Your task to perform on an android device: see creations saved in the google photos Image 0: 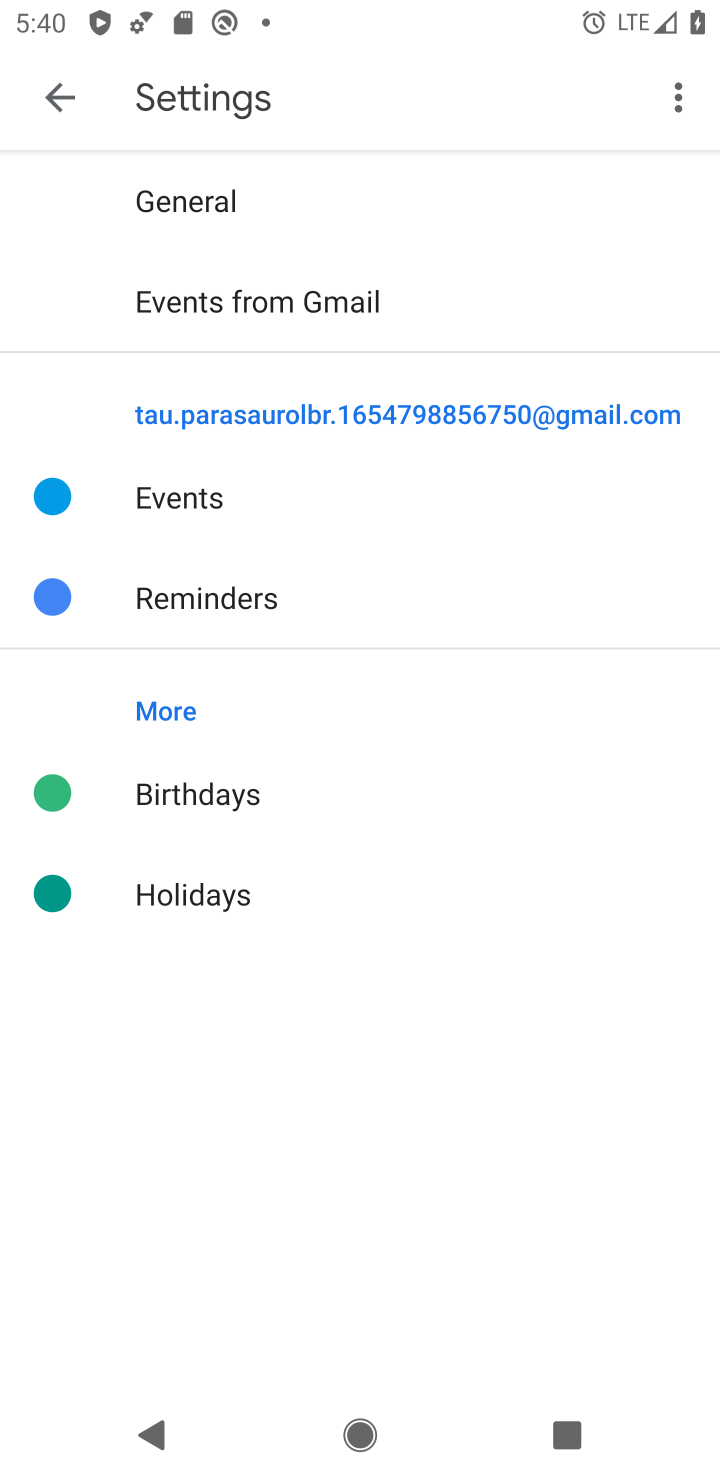
Step 0: press home button
Your task to perform on an android device: see creations saved in the google photos Image 1: 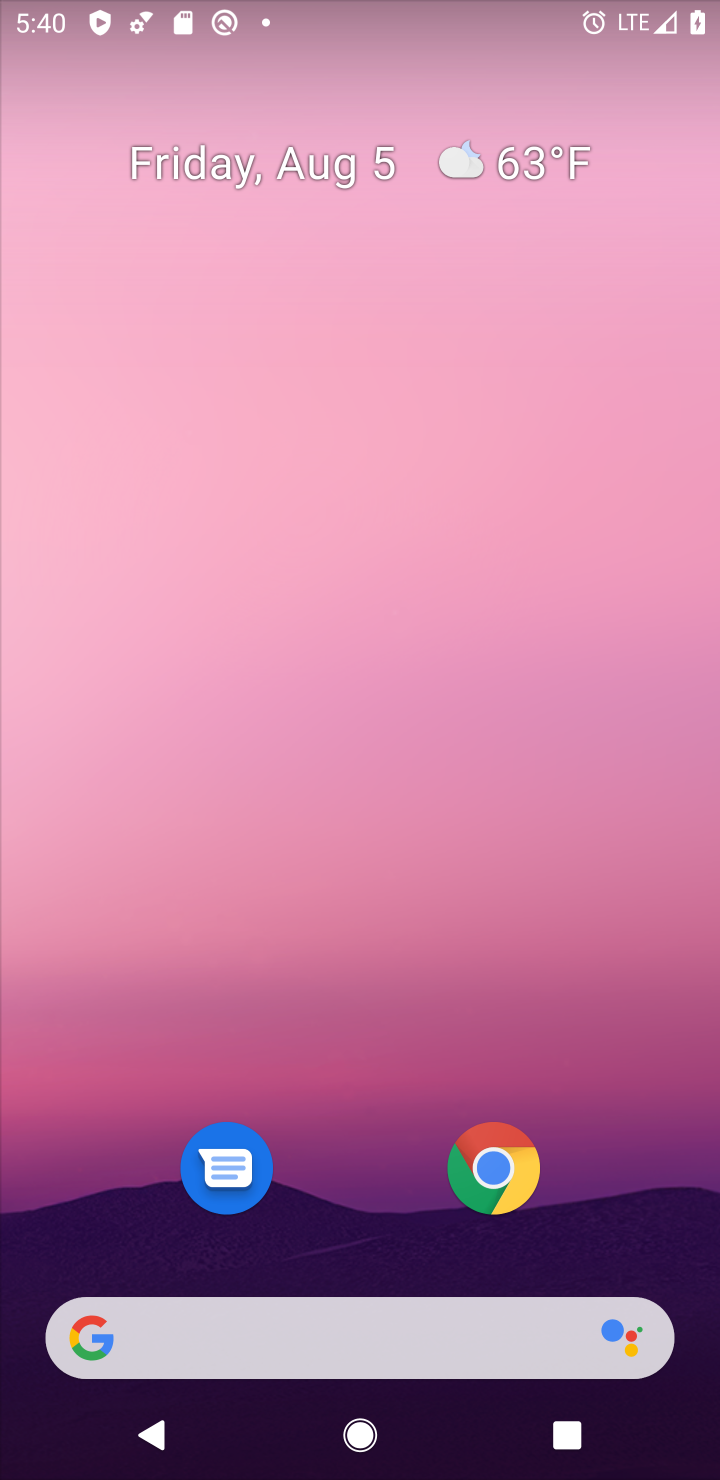
Step 1: drag from (350, 1274) to (455, 77)
Your task to perform on an android device: see creations saved in the google photos Image 2: 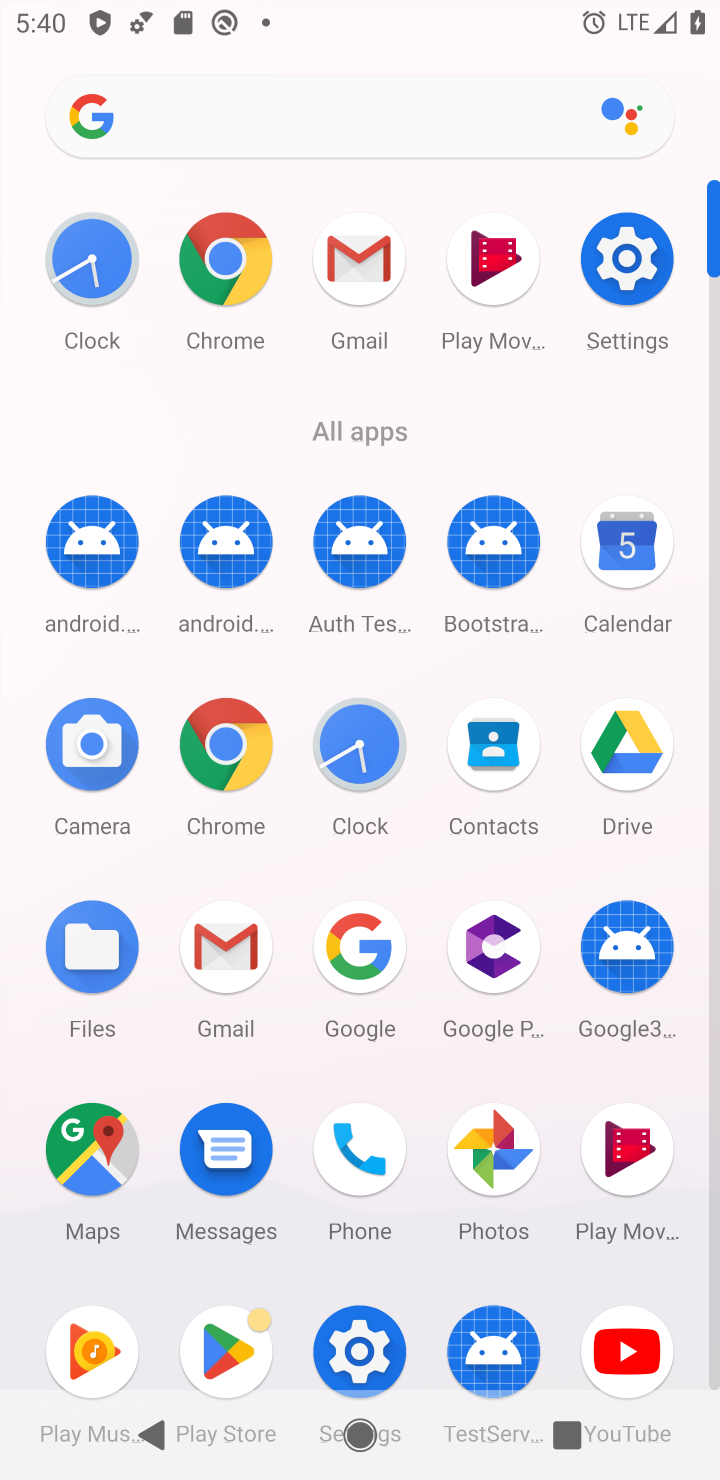
Step 2: click (500, 1159)
Your task to perform on an android device: see creations saved in the google photos Image 3: 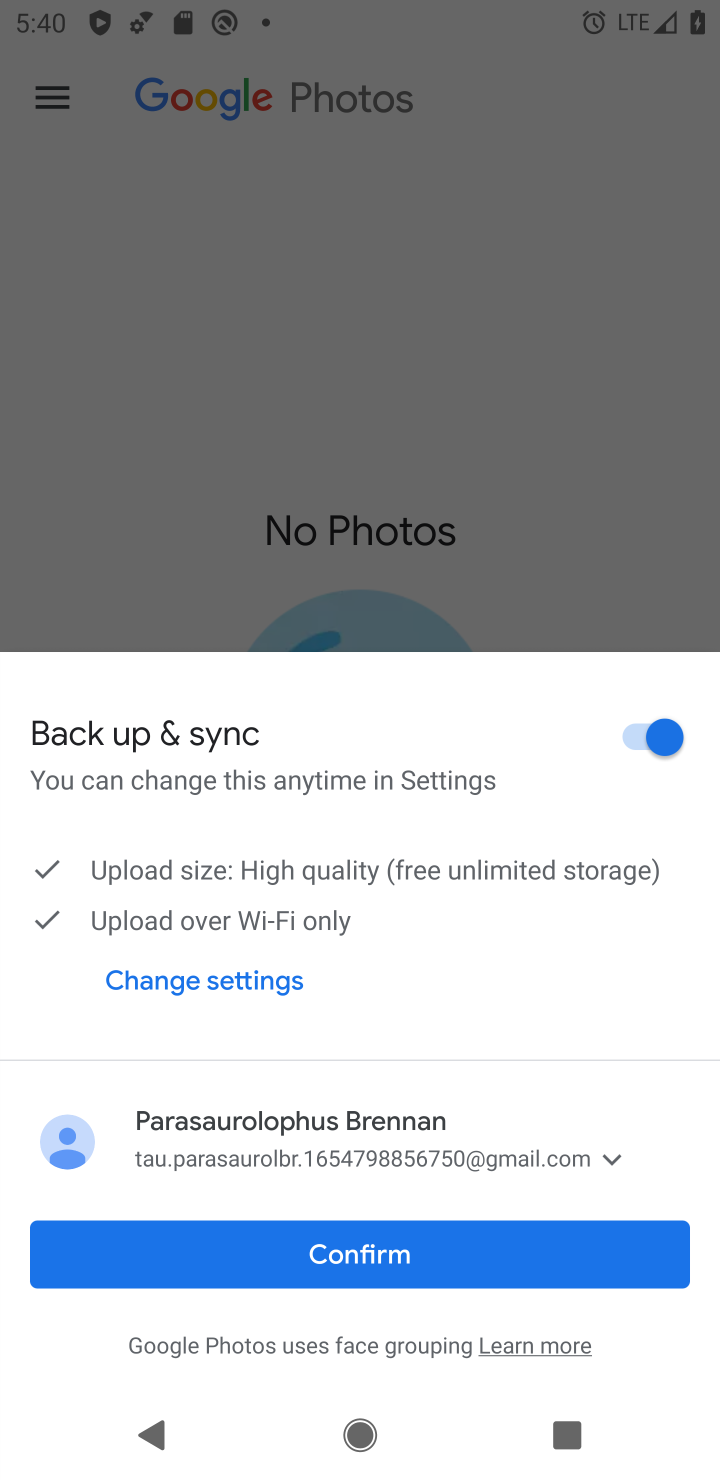
Step 3: click (269, 1254)
Your task to perform on an android device: see creations saved in the google photos Image 4: 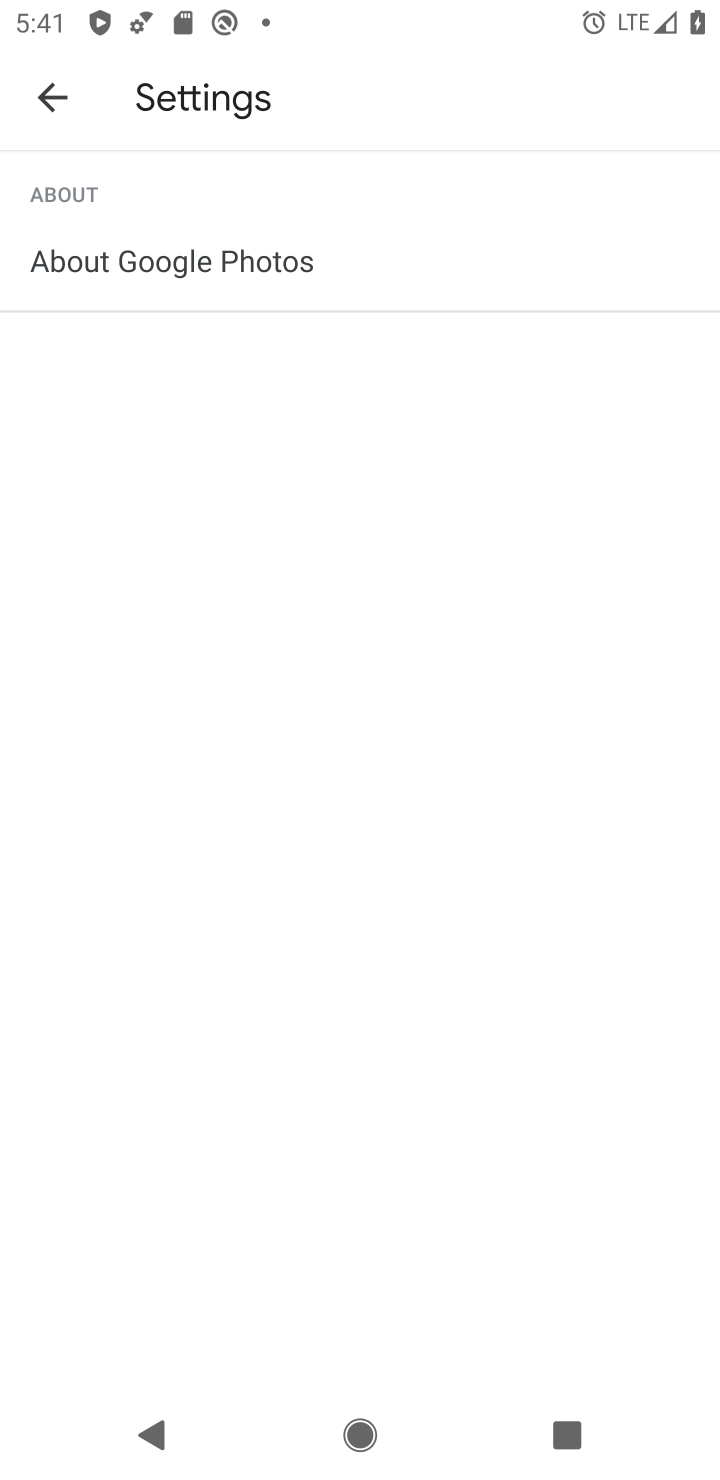
Step 4: click (40, 94)
Your task to perform on an android device: see creations saved in the google photos Image 5: 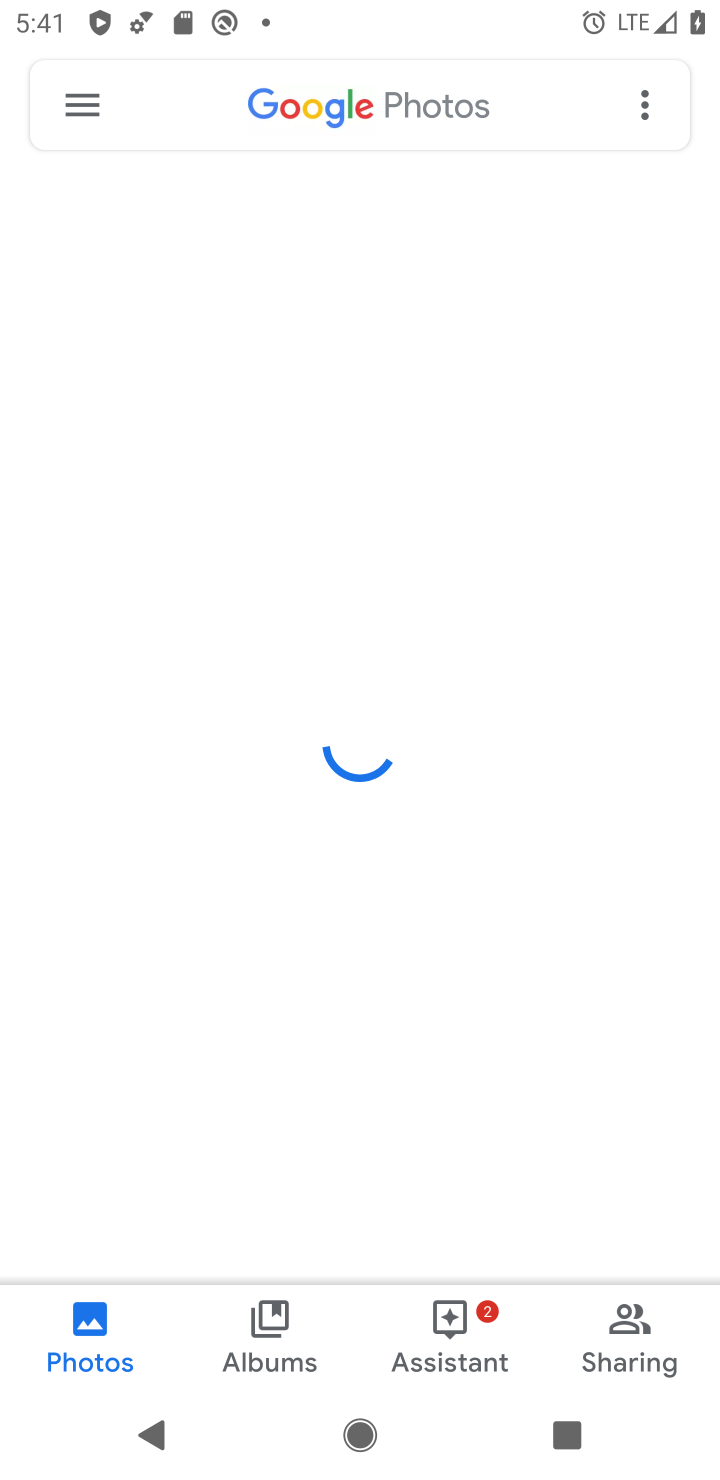
Step 5: click (453, 107)
Your task to perform on an android device: see creations saved in the google photos Image 6: 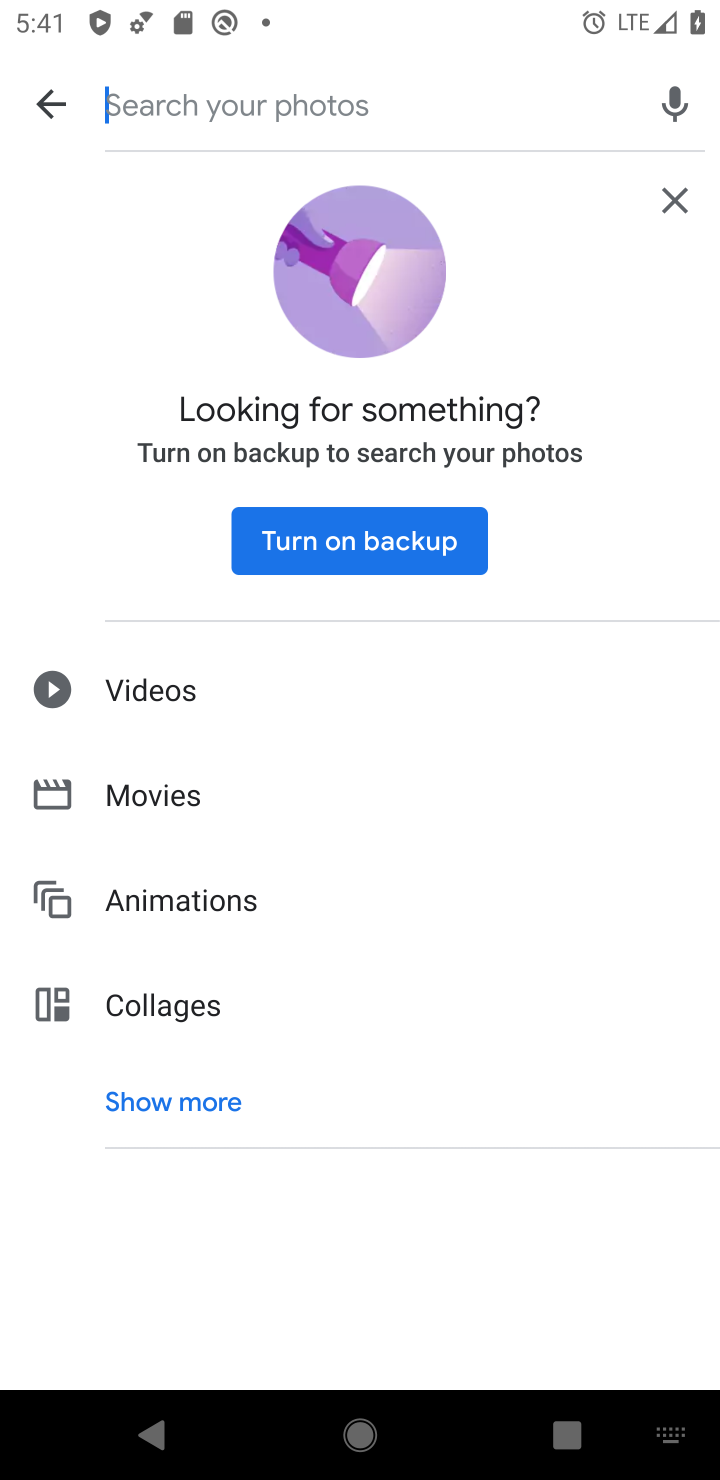
Step 6: click (302, 102)
Your task to perform on an android device: see creations saved in the google photos Image 7: 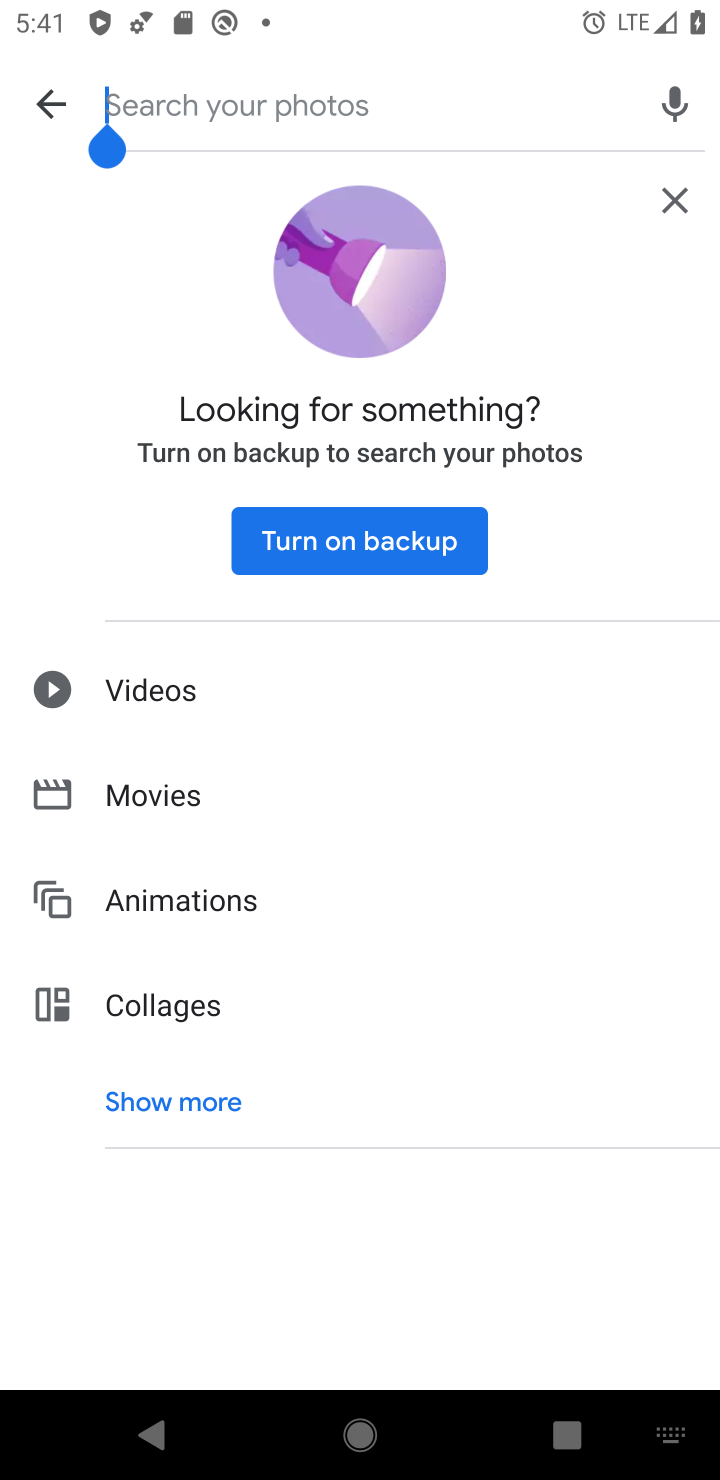
Step 7: click (190, 1094)
Your task to perform on an android device: see creations saved in the google photos Image 8: 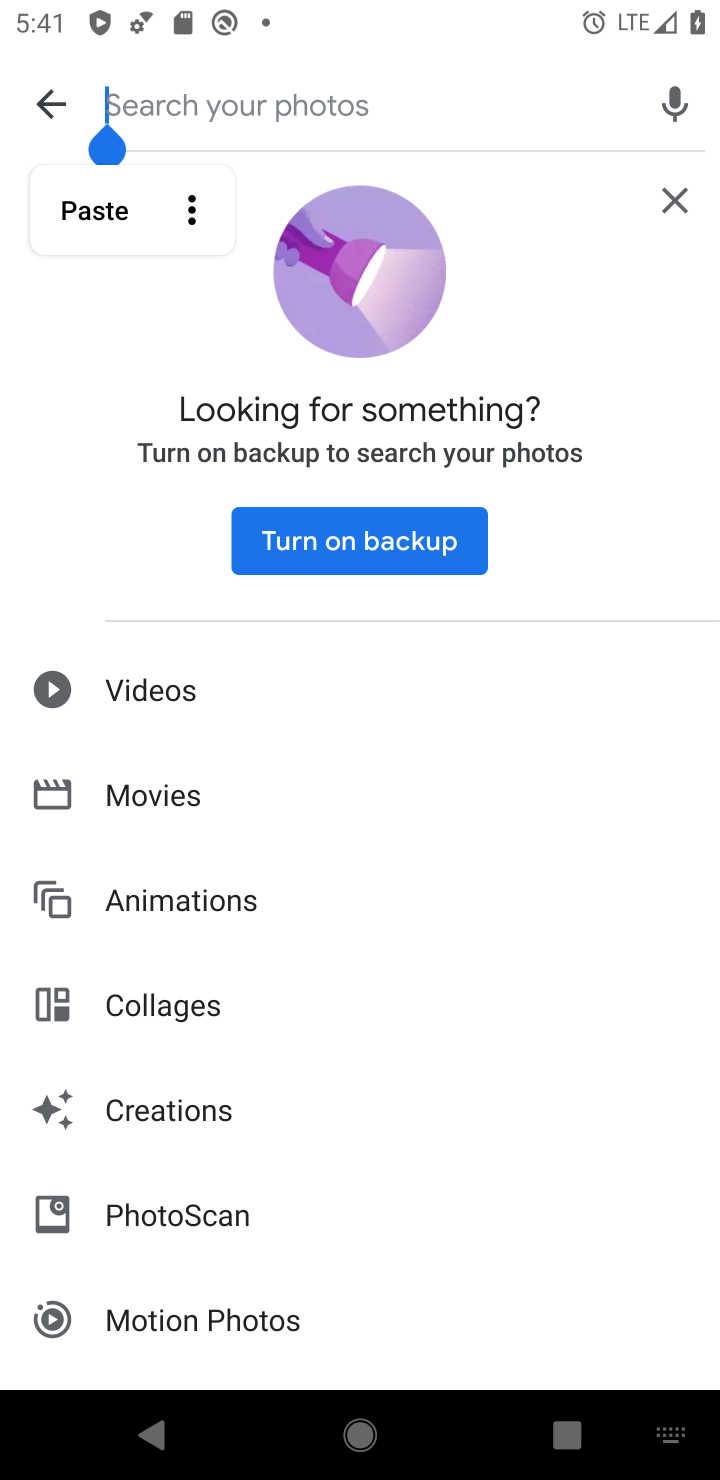
Step 8: click (154, 1115)
Your task to perform on an android device: see creations saved in the google photos Image 9: 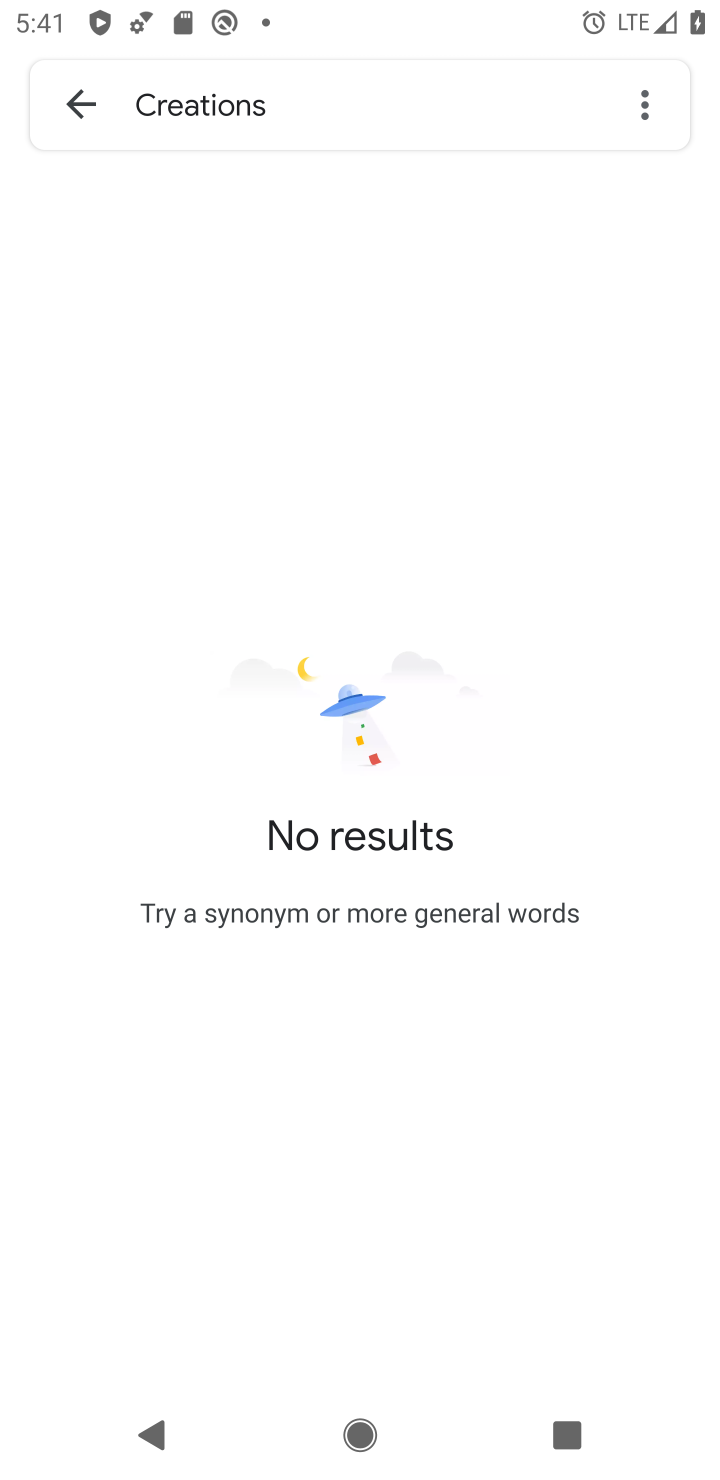
Step 9: task complete